Your task to perform on an android device: Open Yahoo.com Image 0: 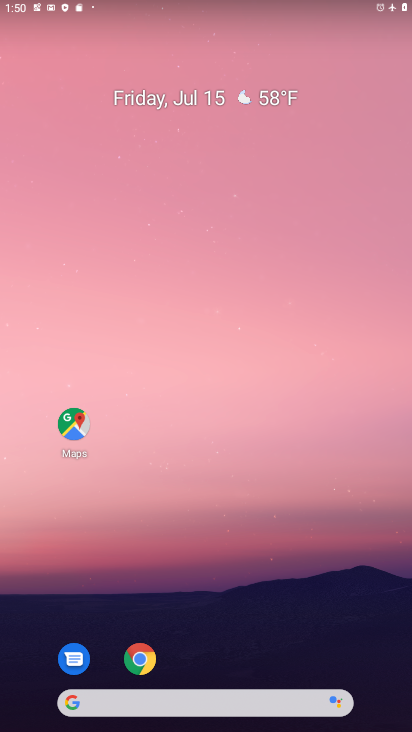
Step 0: click (138, 662)
Your task to perform on an android device: Open Yahoo.com Image 1: 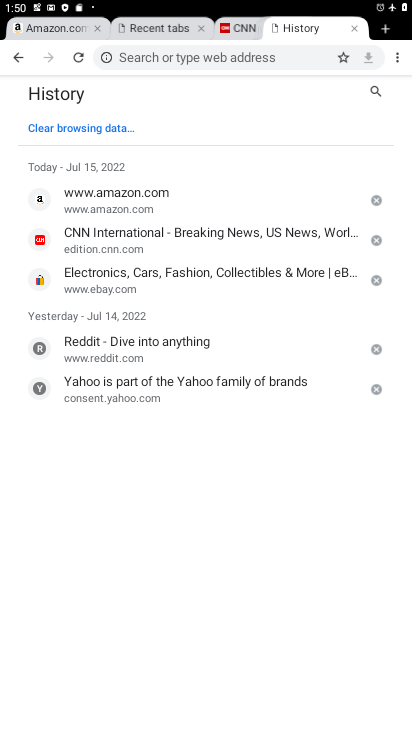
Step 1: click (397, 64)
Your task to perform on an android device: Open Yahoo.com Image 2: 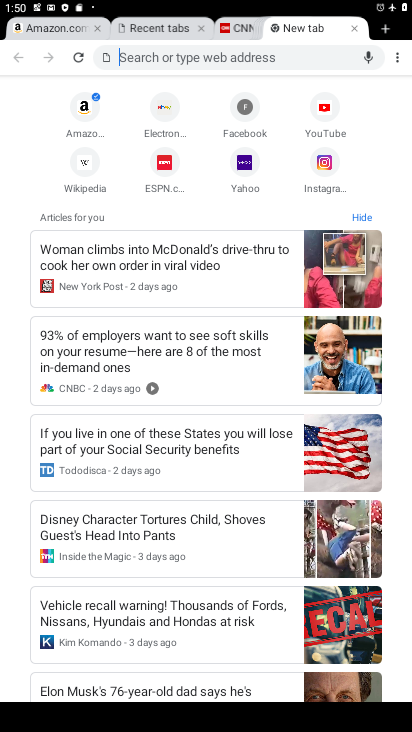
Step 2: click (245, 156)
Your task to perform on an android device: Open Yahoo.com Image 3: 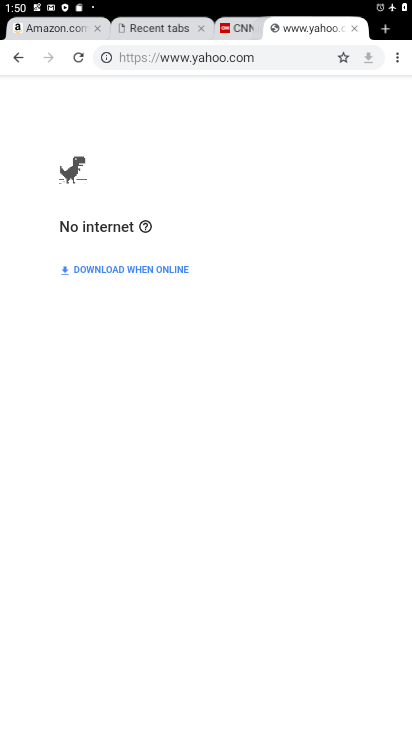
Step 3: task complete